Your task to perform on an android device: change notifications settings Image 0: 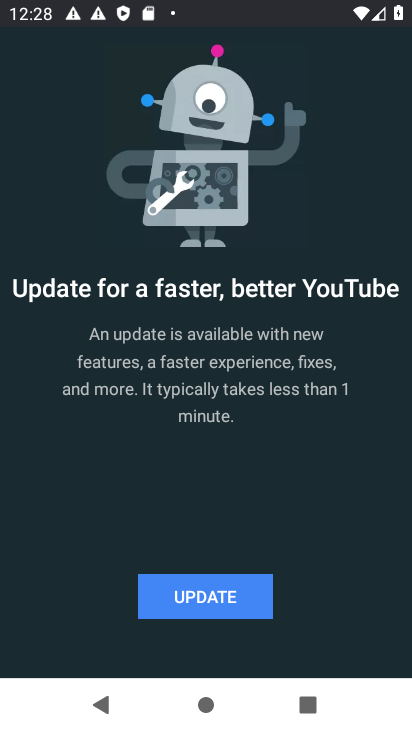
Step 0: press home button
Your task to perform on an android device: change notifications settings Image 1: 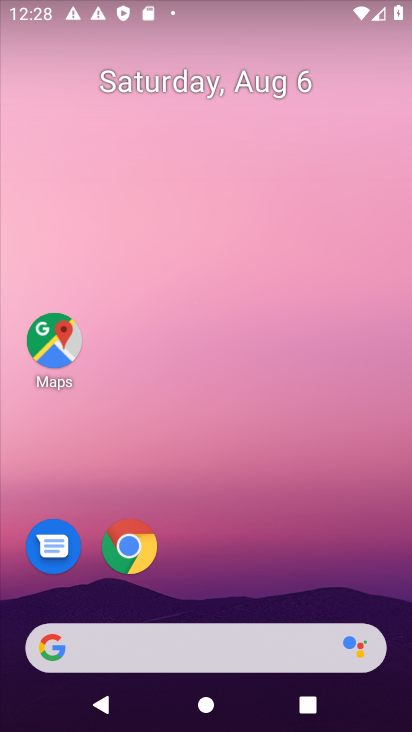
Step 1: drag from (365, 577) to (336, 77)
Your task to perform on an android device: change notifications settings Image 2: 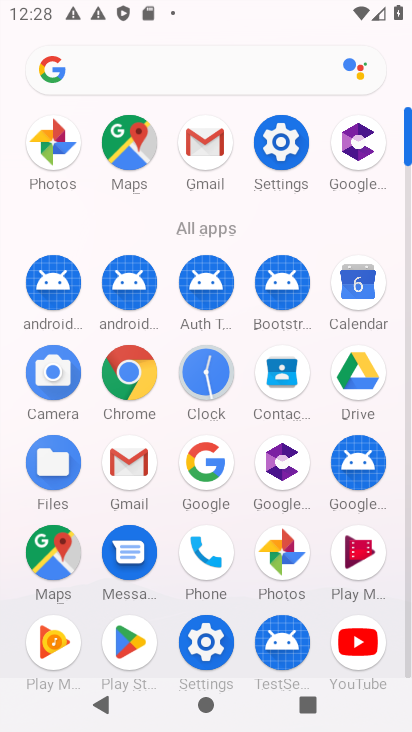
Step 2: click (201, 640)
Your task to perform on an android device: change notifications settings Image 3: 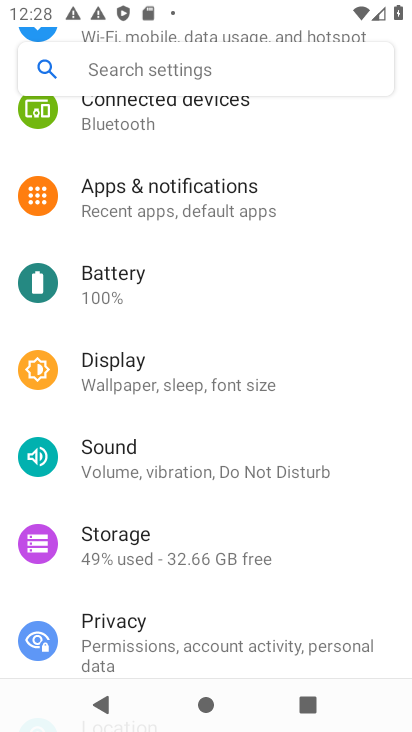
Step 3: click (167, 191)
Your task to perform on an android device: change notifications settings Image 4: 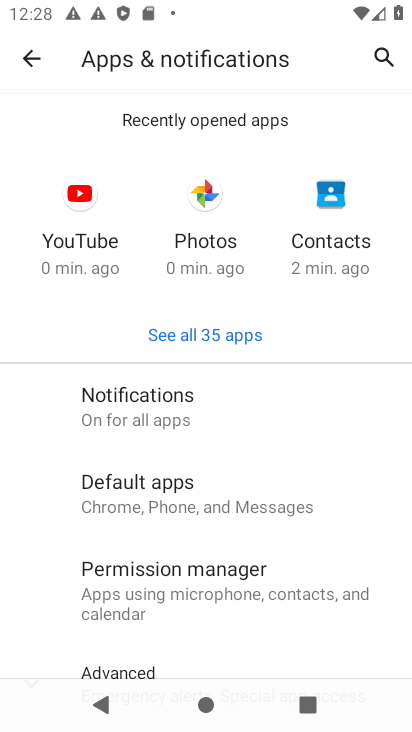
Step 4: click (136, 419)
Your task to perform on an android device: change notifications settings Image 5: 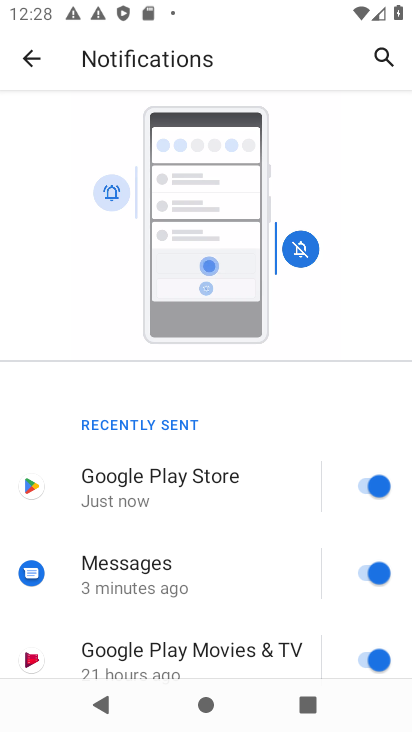
Step 5: drag from (315, 610) to (266, 155)
Your task to perform on an android device: change notifications settings Image 6: 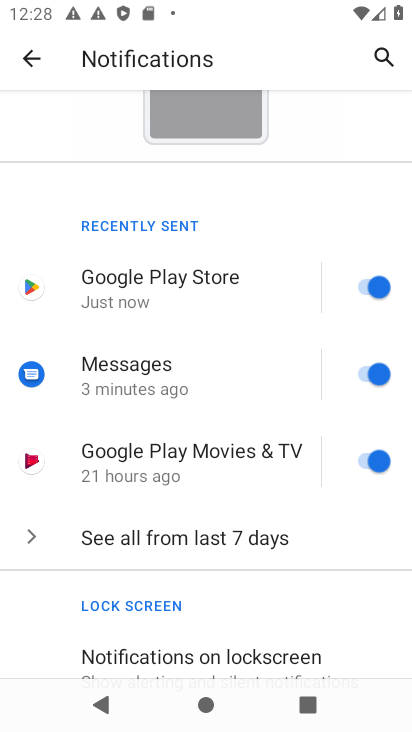
Step 6: drag from (315, 610) to (316, 246)
Your task to perform on an android device: change notifications settings Image 7: 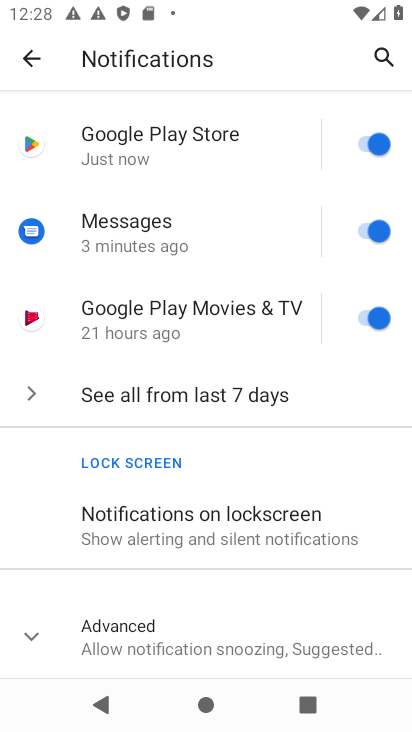
Step 7: click (40, 637)
Your task to perform on an android device: change notifications settings Image 8: 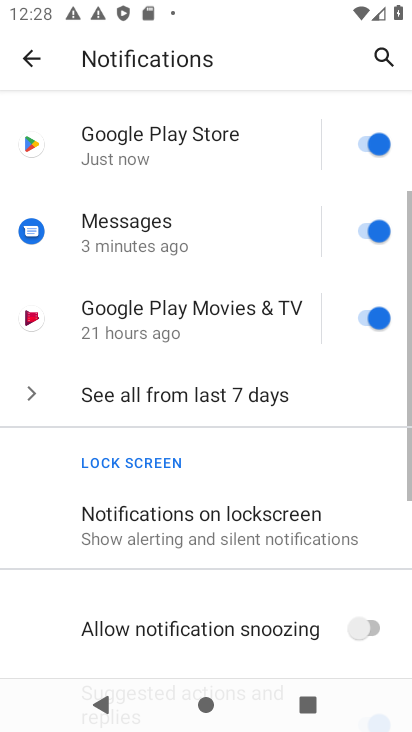
Step 8: drag from (312, 467) to (305, 206)
Your task to perform on an android device: change notifications settings Image 9: 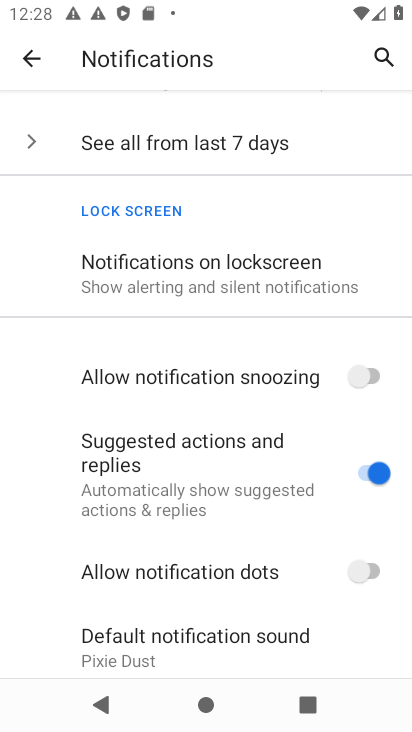
Step 9: click (374, 573)
Your task to perform on an android device: change notifications settings Image 10: 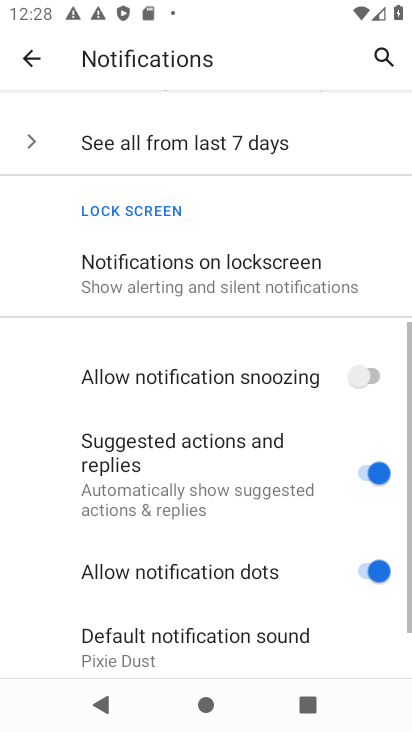
Step 10: click (376, 373)
Your task to perform on an android device: change notifications settings Image 11: 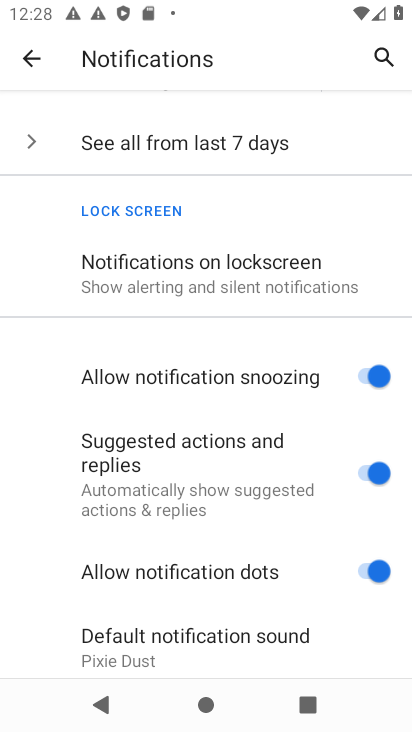
Step 11: task complete